Your task to perform on an android device: Open Wikipedia Image 0: 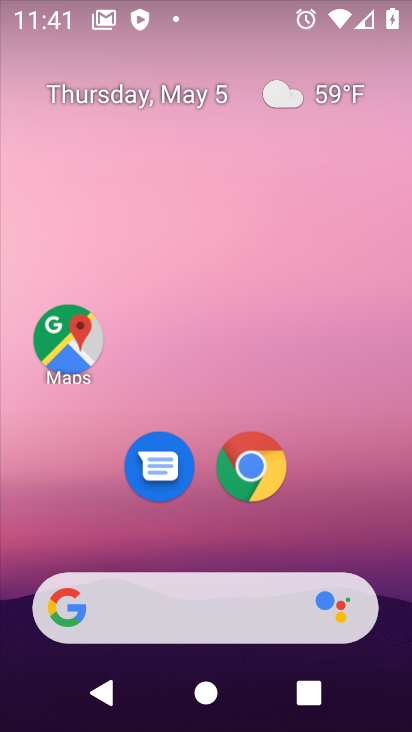
Step 0: drag from (136, 548) to (184, 149)
Your task to perform on an android device: Open Wikipedia Image 1: 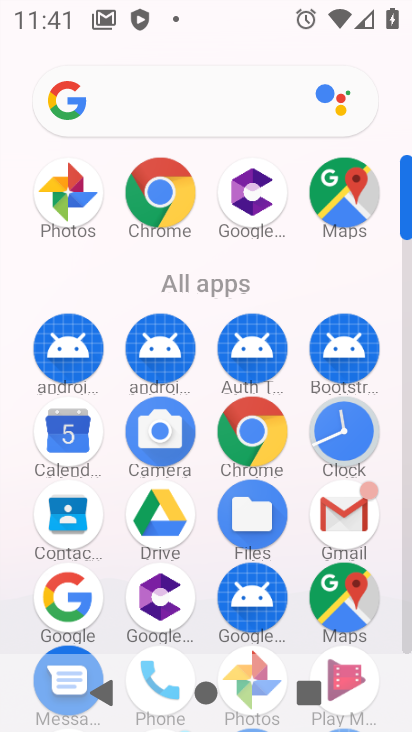
Step 1: click (160, 194)
Your task to perform on an android device: Open Wikipedia Image 2: 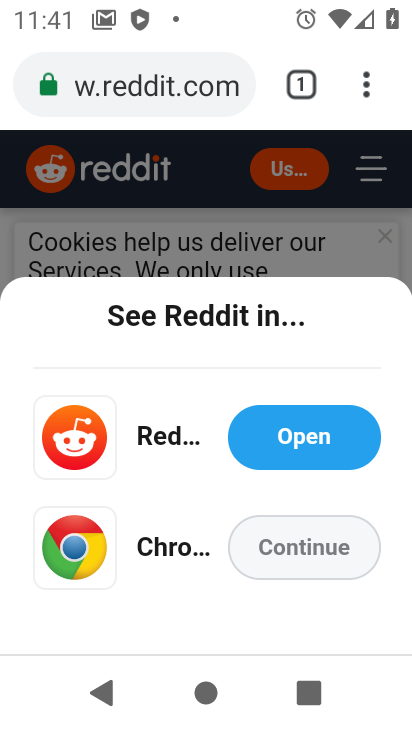
Step 2: click (293, 561)
Your task to perform on an android device: Open Wikipedia Image 3: 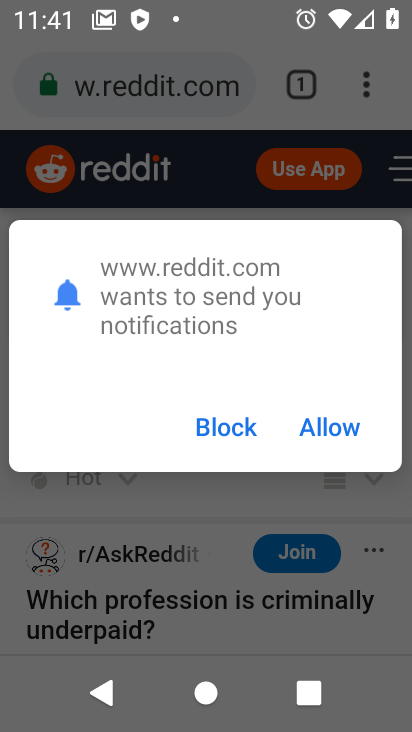
Step 3: click (303, 436)
Your task to perform on an android device: Open Wikipedia Image 4: 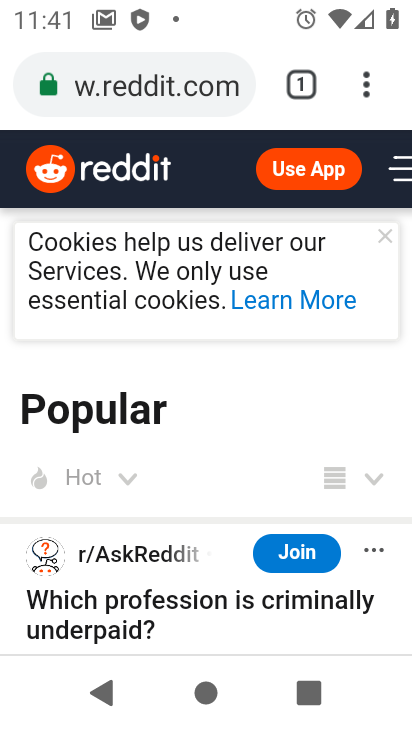
Step 4: click (139, 94)
Your task to perform on an android device: Open Wikipedia Image 5: 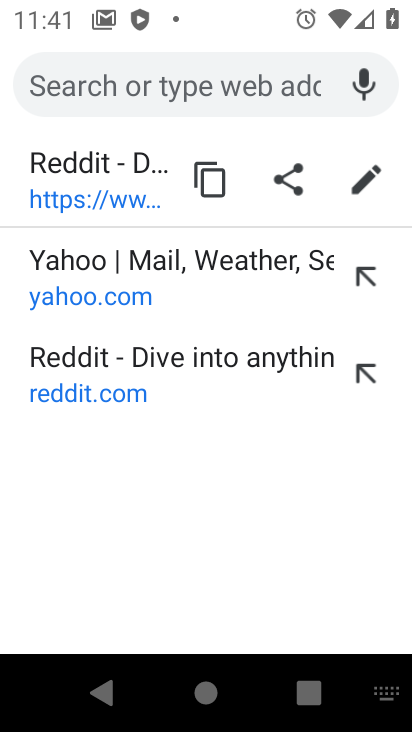
Step 5: type "wikipedia"
Your task to perform on an android device: Open Wikipedia Image 6: 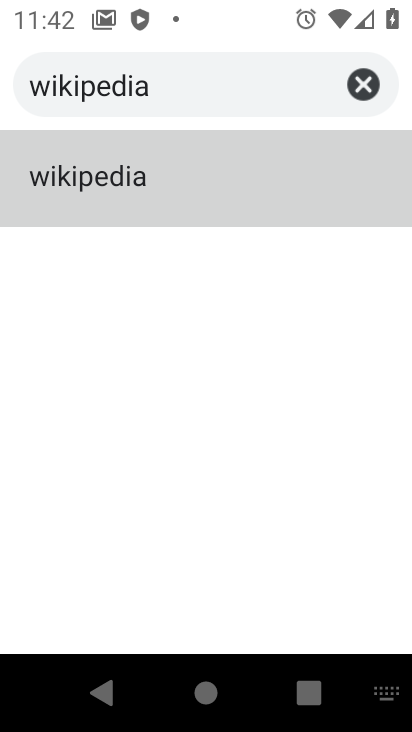
Step 6: click (107, 192)
Your task to perform on an android device: Open Wikipedia Image 7: 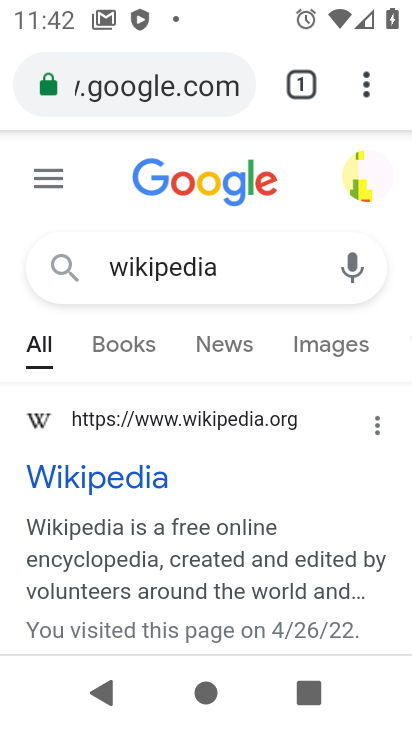
Step 7: task complete